Your task to perform on an android device: turn off translation in the chrome app Image 0: 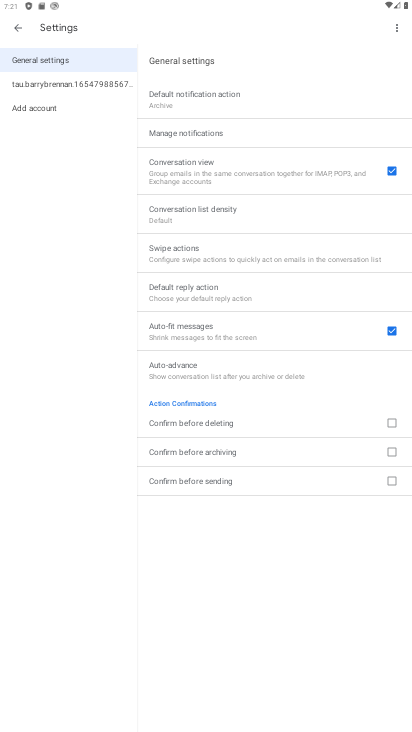
Step 0: press home button
Your task to perform on an android device: turn off translation in the chrome app Image 1: 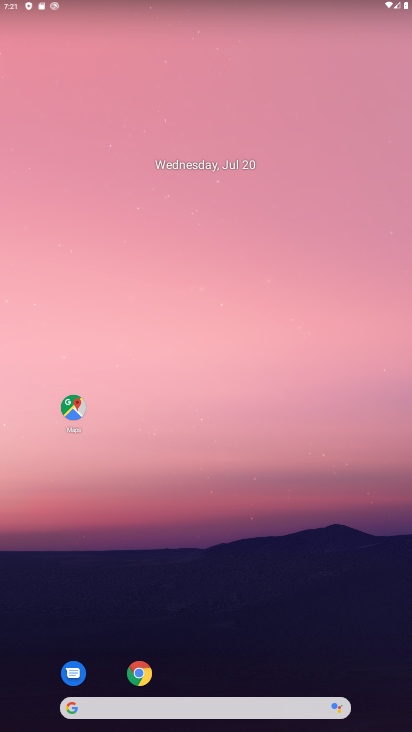
Step 1: drag from (258, 127) to (250, 7)
Your task to perform on an android device: turn off translation in the chrome app Image 2: 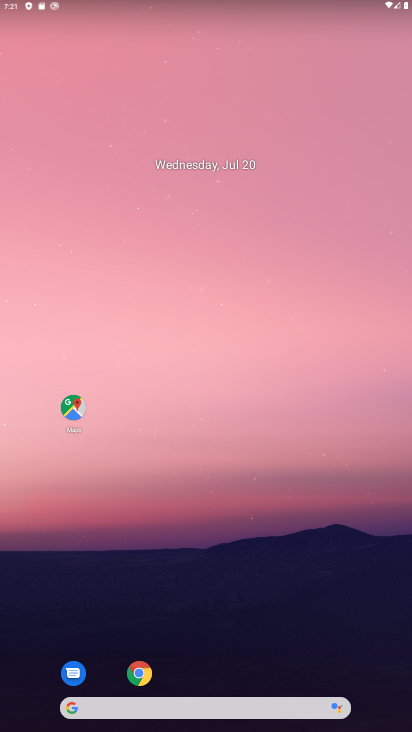
Step 2: drag from (299, 562) to (203, 11)
Your task to perform on an android device: turn off translation in the chrome app Image 3: 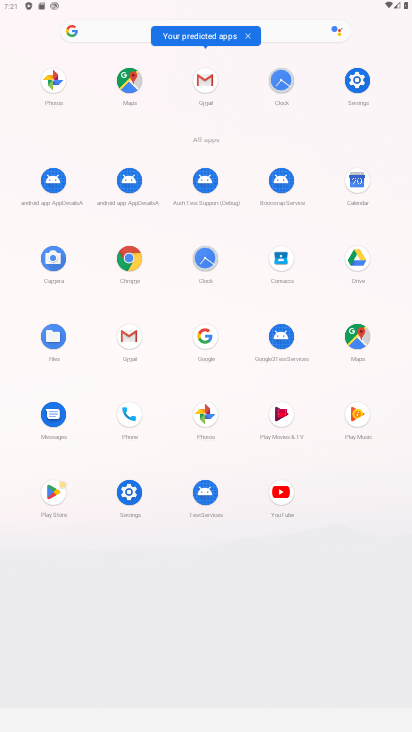
Step 3: click (133, 269)
Your task to perform on an android device: turn off translation in the chrome app Image 4: 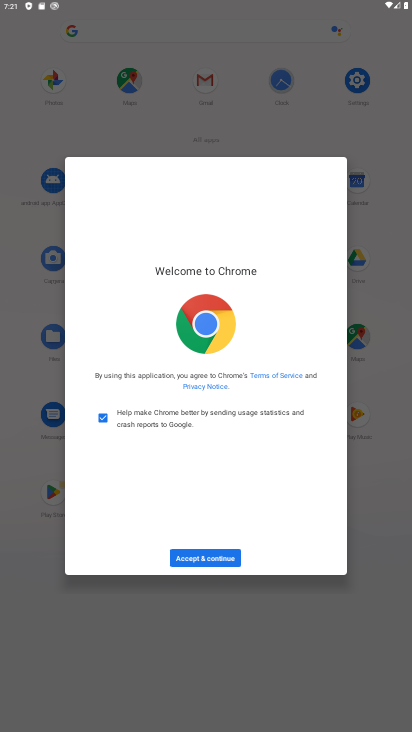
Step 4: click (237, 560)
Your task to perform on an android device: turn off translation in the chrome app Image 5: 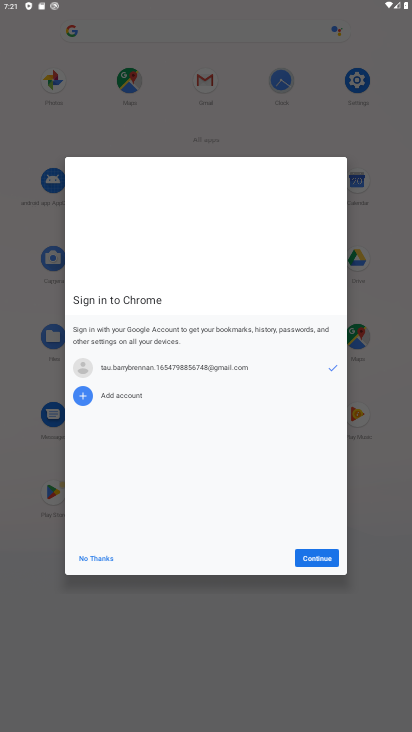
Step 5: click (97, 567)
Your task to perform on an android device: turn off translation in the chrome app Image 6: 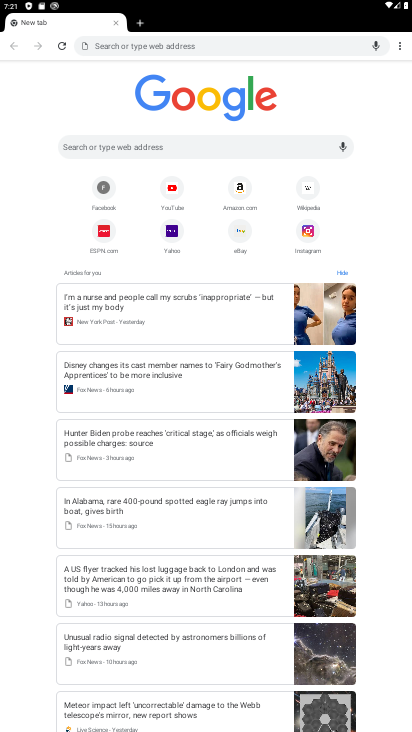
Step 6: drag from (397, 48) to (308, 223)
Your task to perform on an android device: turn off translation in the chrome app Image 7: 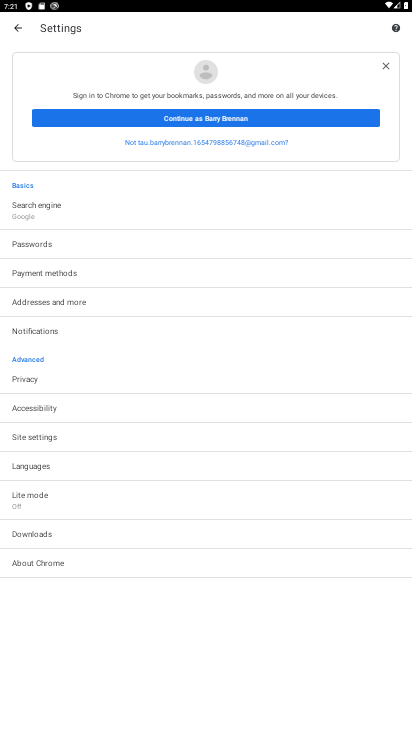
Step 7: click (53, 463)
Your task to perform on an android device: turn off translation in the chrome app Image 8: 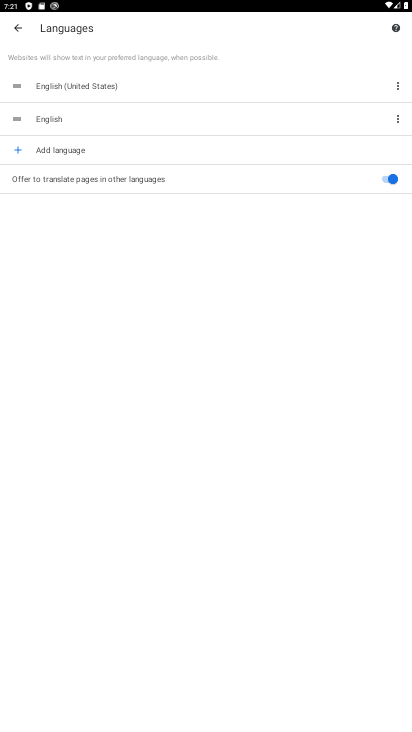
Step 8: click (387, 177)
Your task to perform on an android device: turn off translation in the chrome app Image 9: 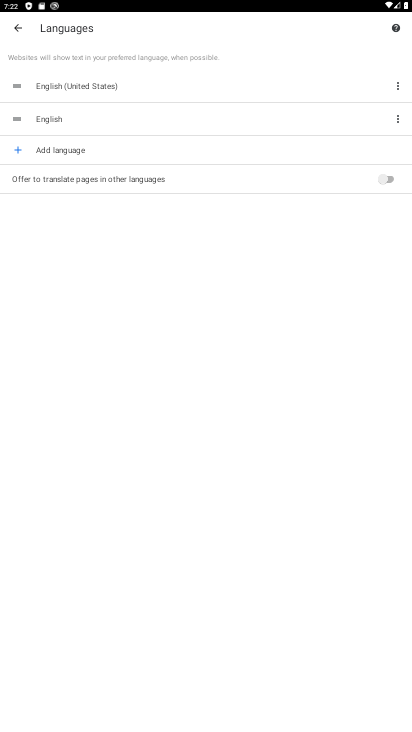
Step 9: task complete